Your task to perform on an android device: star an email in the gmail app Image 0: 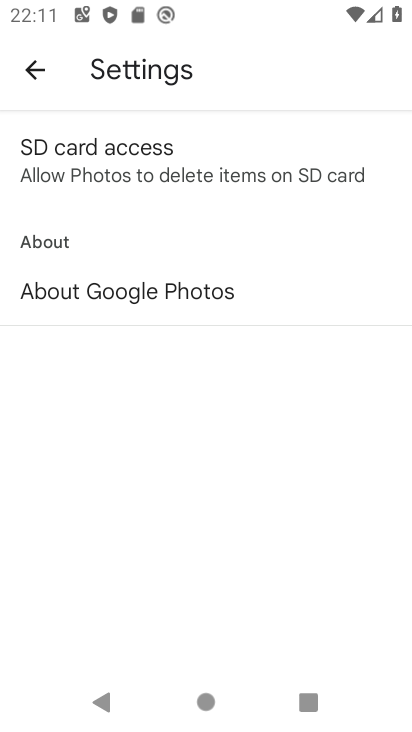
Step 0: press home button
Your task to perform on an android device: star an email in the gmail app Image 1: 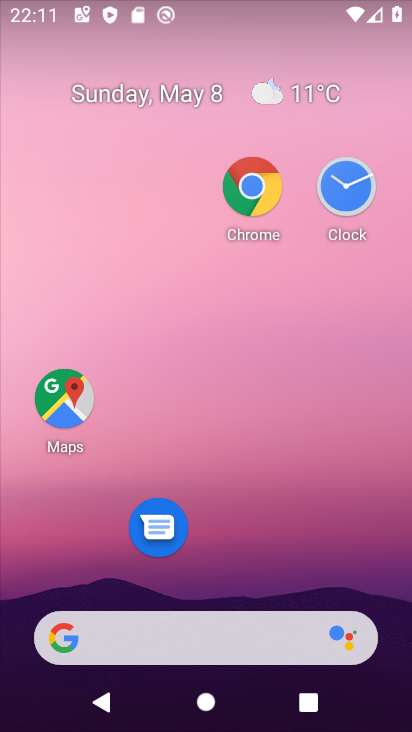
Step 1: drag from (315, 490) to (334, 62)
Your task to perform on an android device: star an email in the gmail app Image 2: 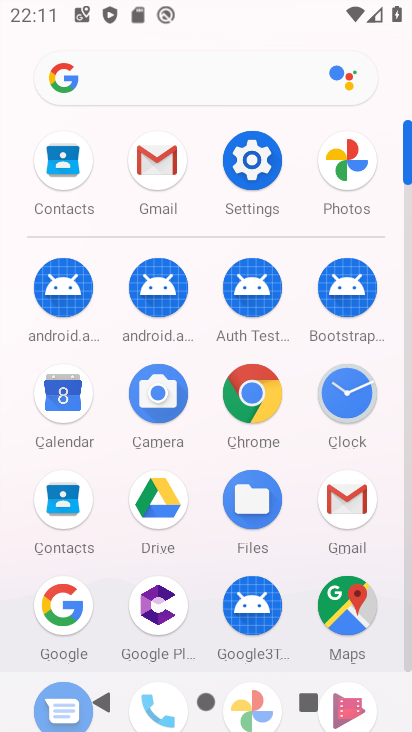
Step 2: click (145, 154)
Your task to perform on an android device: star an email in the gmail app Image 3: 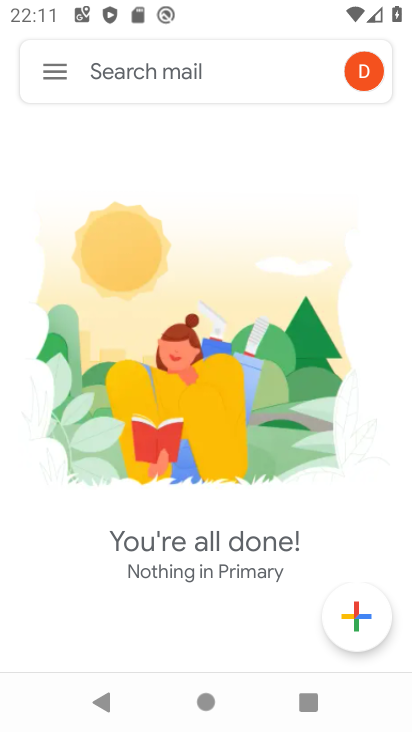
Step 3: click (52, 72)
Your task to perform on an android device: star an email in the gmail app Image 4: 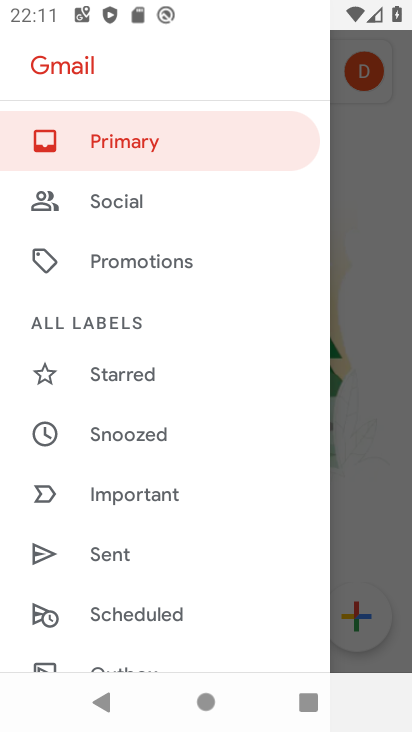
Step 4: drag from (125, 524) to (142, 207)
Your task to perform on an android device: star an email in the gmail app Image 5: 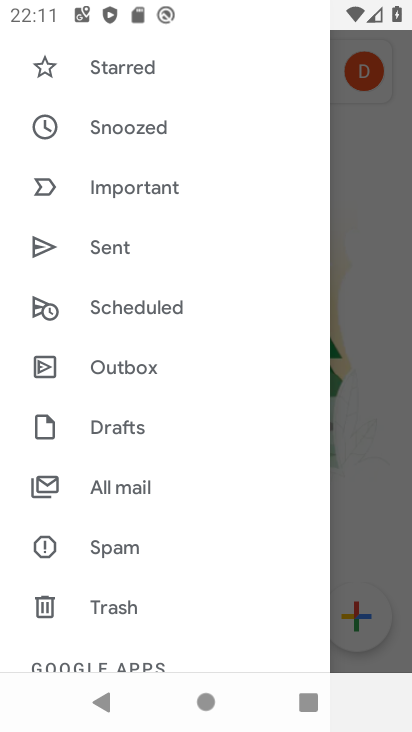
Step 5: click (135, 479)
Your task to perform on an android device: star an email in the gmail app Image 6: 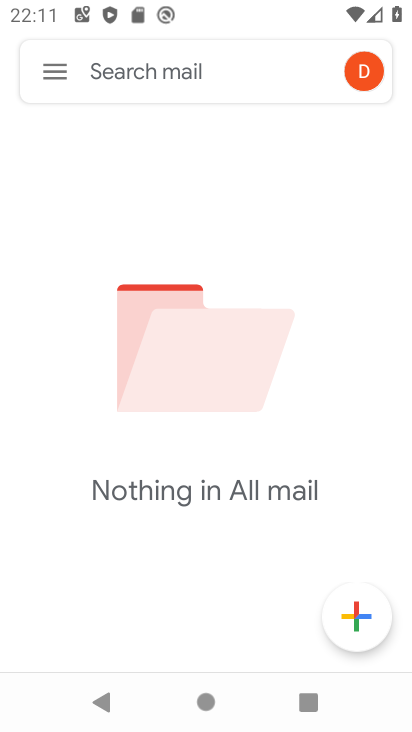
Step 6: task complete